Your task to perform on an android device: open app "Adobe Acrobat Reader: Edit PDF" Image 0: 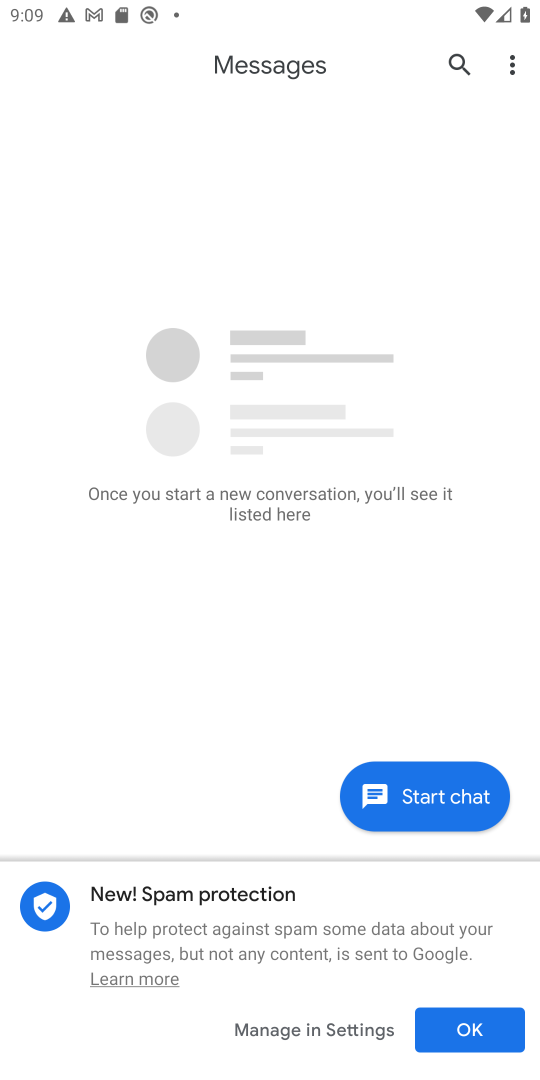
Step 0: press home button
Your task to perform on an android device: open app "Adobe Acrobat Reader: Edit PDF" Image 1: 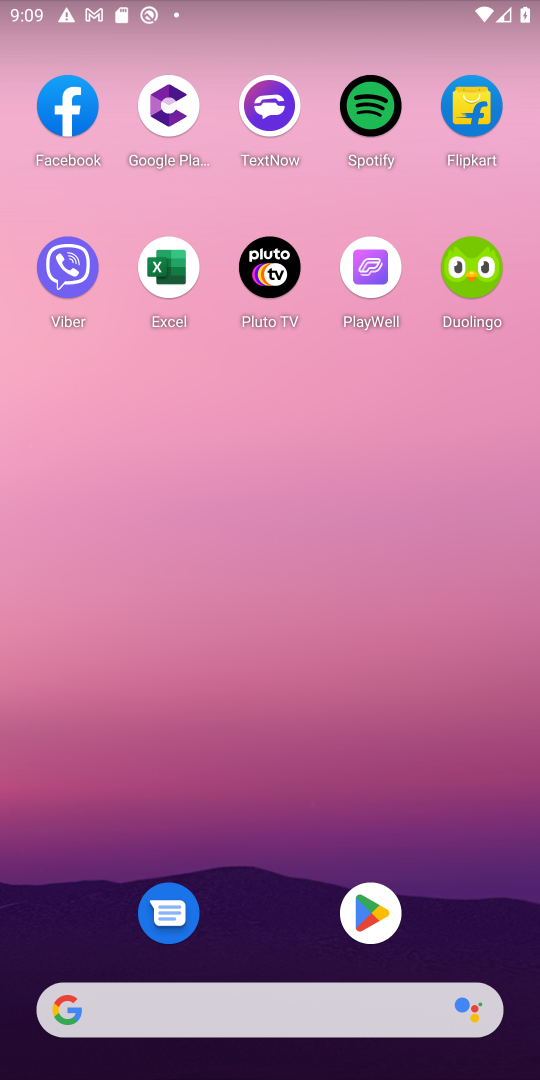
Step 1: click (369, 886)
Your task to perform on an android device: open app "Adobe Acrobat Reader: Edit PDF" Image 2: 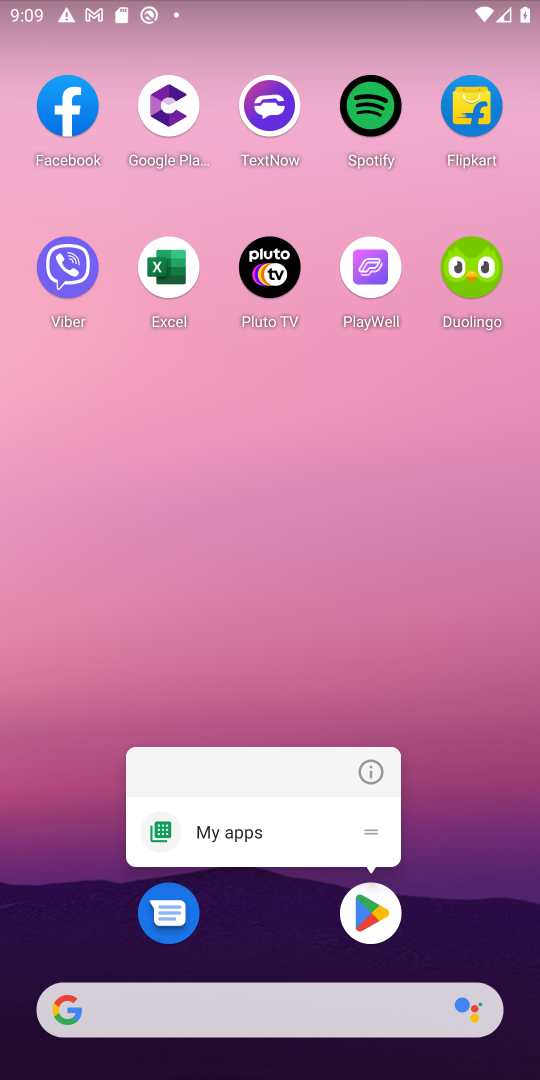
Step 2: click (366, 924)
Your task to perform on an android device: open app "Adobe Acrobat Reader: Edit PDF" Image 3: 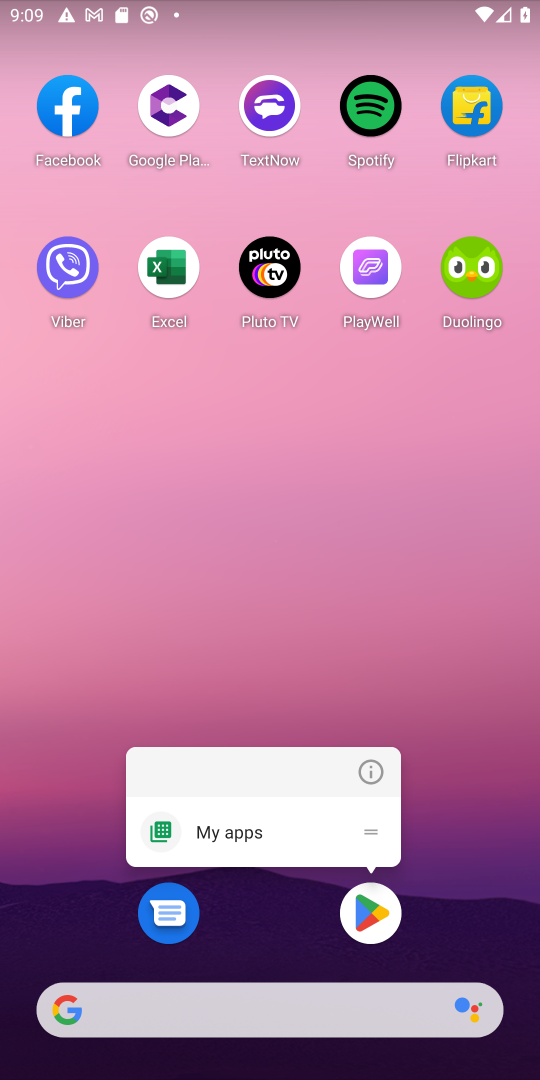
Step 3: click (364, 951)
Your task to perform on an android device: open app "Adobe Acrobat Reader: Edit PDF" Image 4: 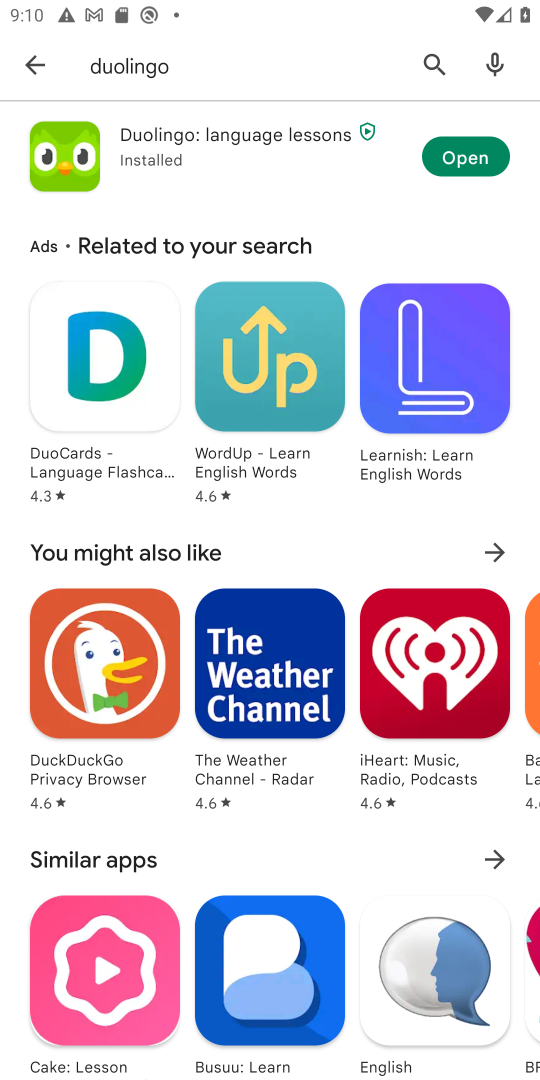
Step 4: click (433, 66)
Your task to perform on an android device: open app "Adobe Acrobat Reader: Edit PDF" Image 5: 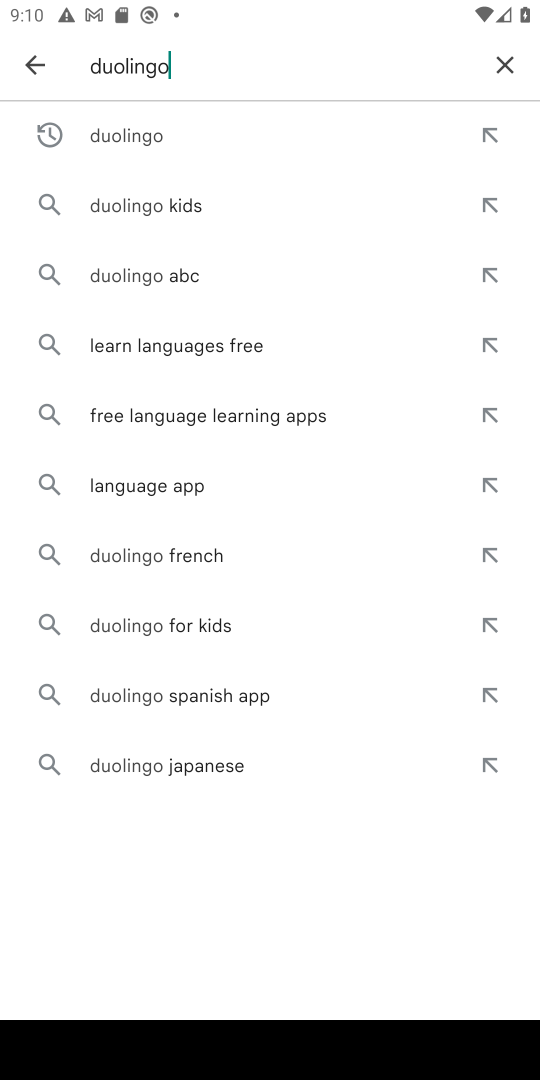
Step 5: click (507, 71)
Your task to perform on an android device: open app "Adobe Acrobat Reader: Edit PDF" Image 6: 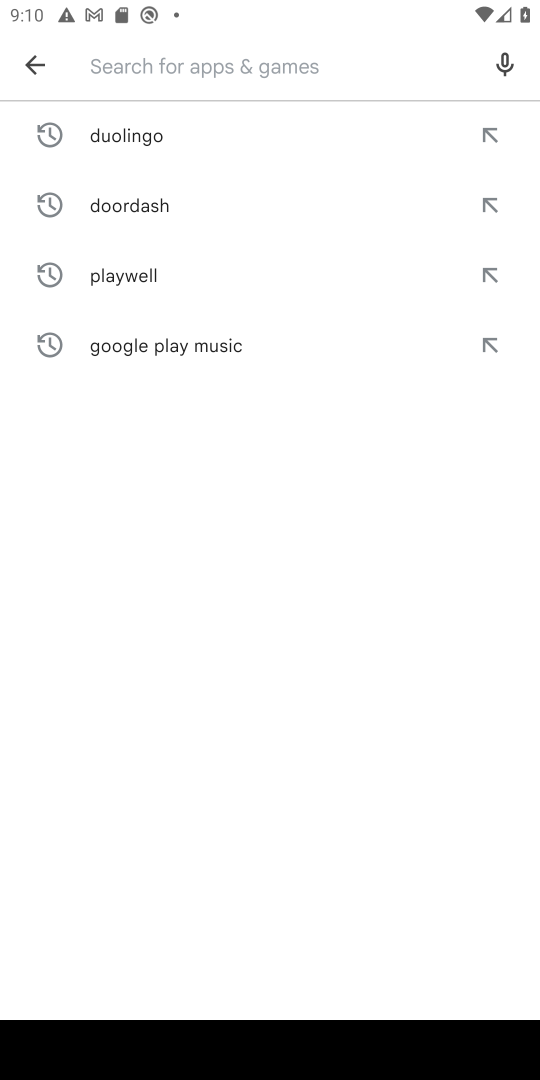
Step 6: type "adobe"
Your task to perform on an android device: open app "Adobe Acrobat Reader: Edit PDF" Image 7: 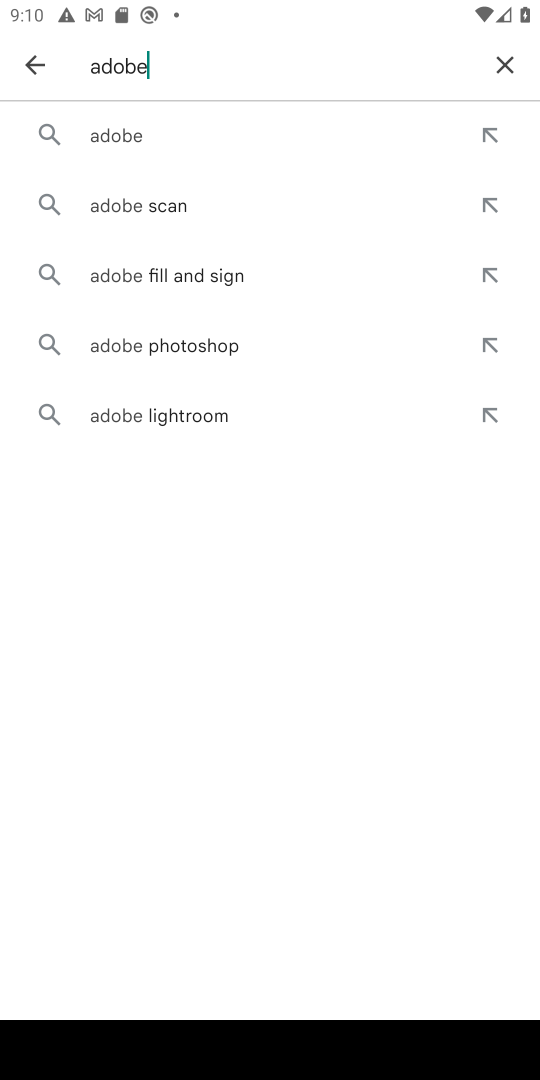
Step 7: click (258, 146)
Your task to perform on an android device: open app "Adobe Acrobat Reader: Edit PDF" Image 8: 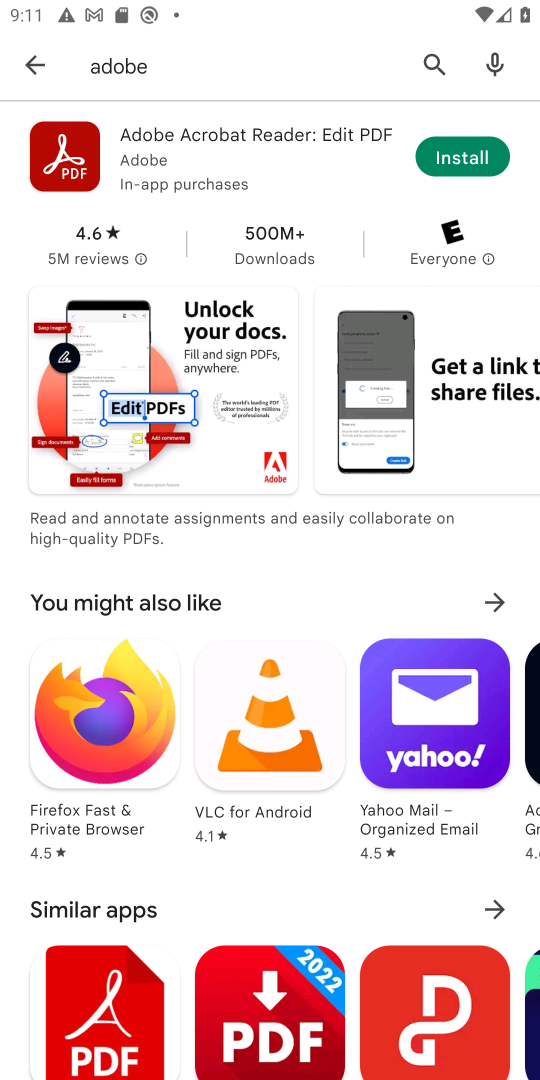
Step 8: task complete